Your task to perform on an android device: Go to Maps Image 0: 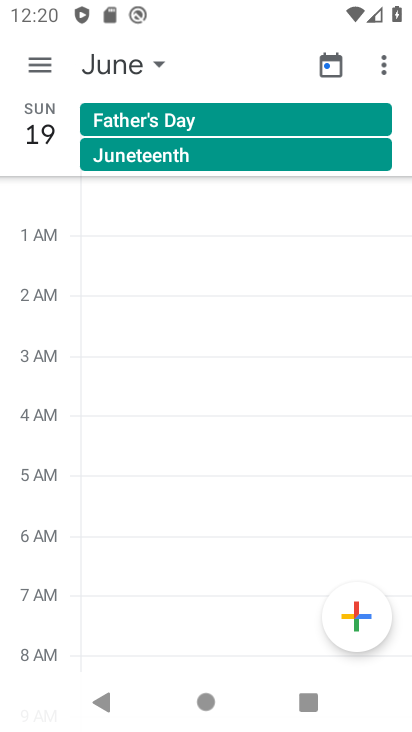
Step 0: press home button
Your task to perform on an android device: Go to Maps Image 1: 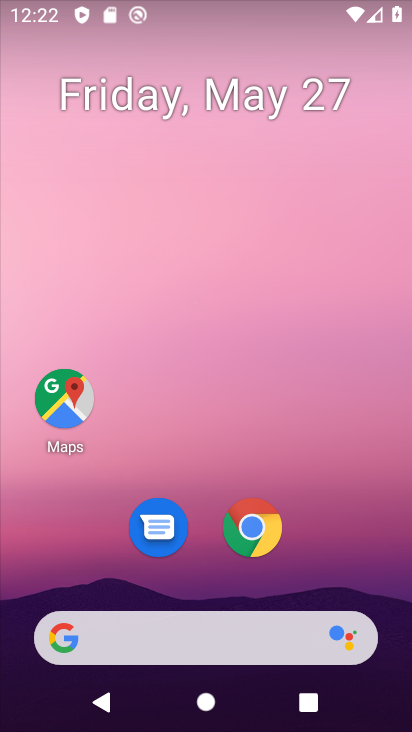
Step 1: click (56, 414)
Your task to perform on an android device: Go to Maps Image 2: 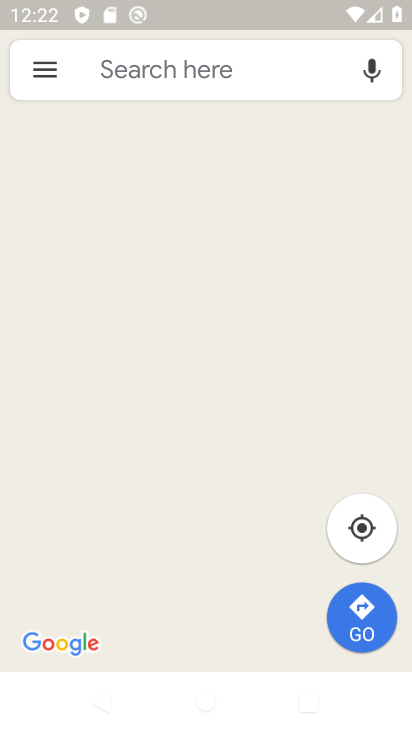
Step 2: task complete